Your task to perform on an android device: check data usage Image 0: 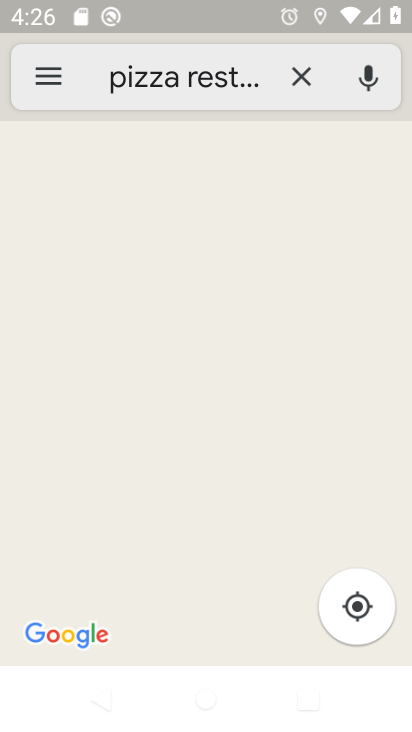
Step 0: press home button
Your task to perform on an android device: check data usage Image 1: 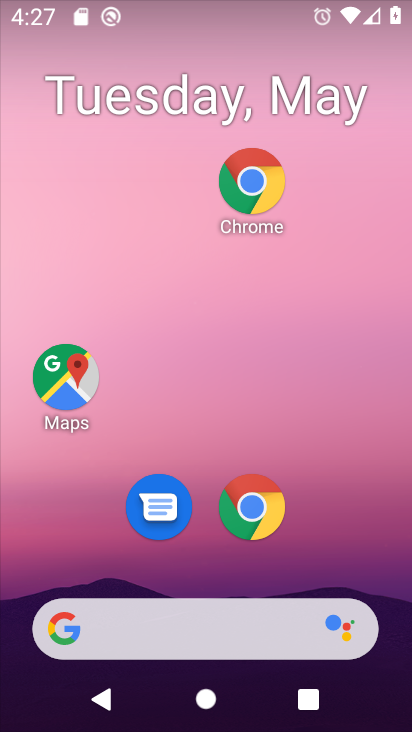
Step 1: drag from (358, 462) to (342, 46)
Your task to perform on an android device: check data usage Image 2: 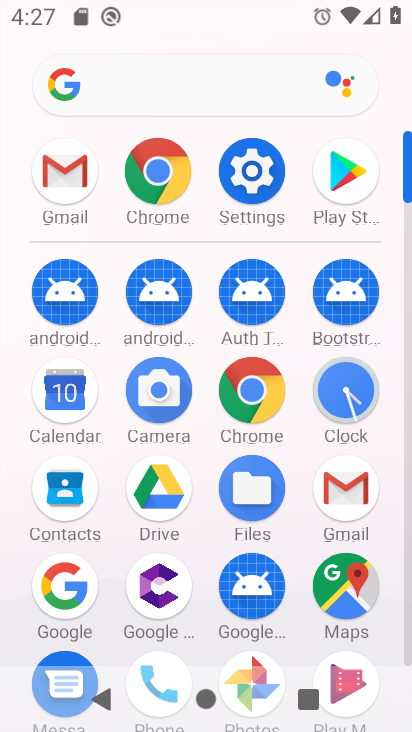
Step 2: click (265, 166)
Your task to perform on an android device: check data usage Image 3: 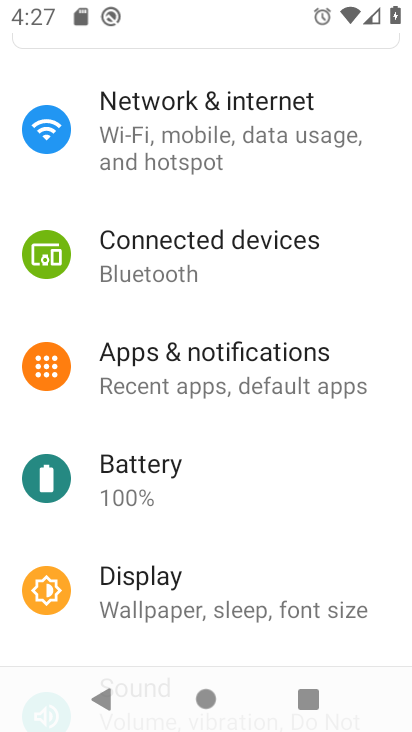
Step 3: drag from (236, 140) to (230, 536)
Your task to perform on an android device: check data usage Image 4: 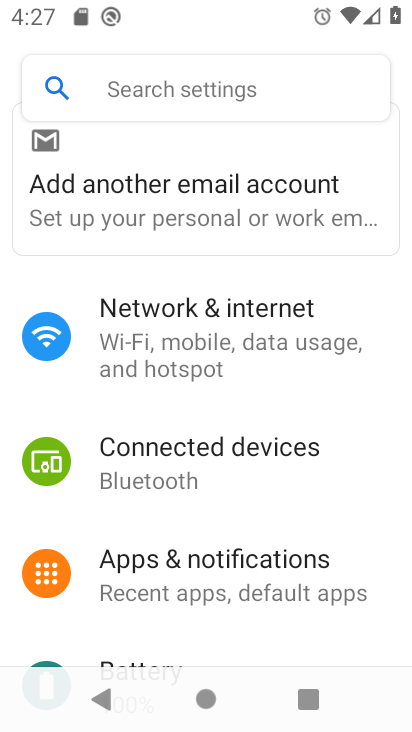
Step 4: click (203, 344)
Your task to perform on an android device: check data usage Image 5: 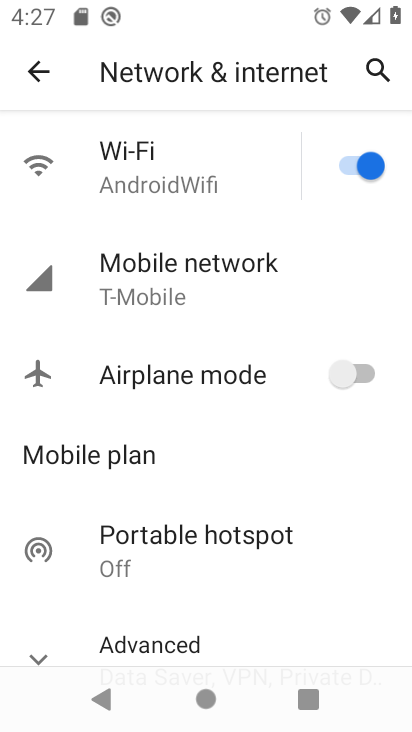
Step 5: click (206, 292)
Your task to perform on an android device: check data usage Image 6: 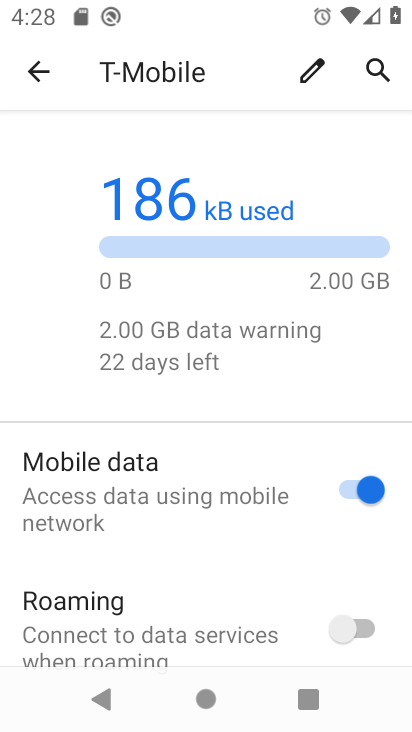
Step 6: task complete